Your task to perform on an android device: toggle pop-ups in chrome Image 0: 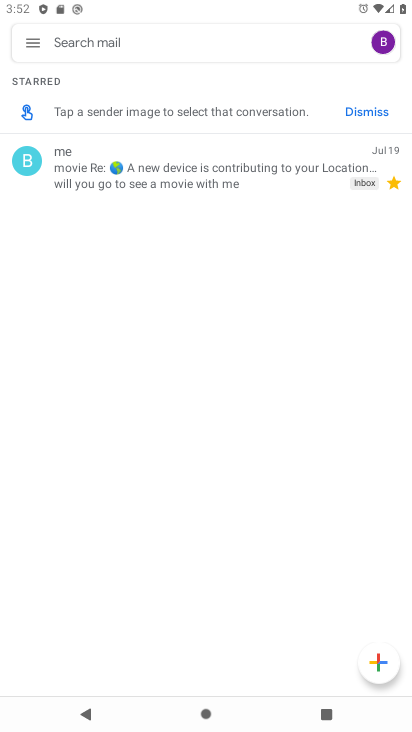
Step 0: press home button
Your task to perform on an android device: toggle pop-ups in chrome Image 1: 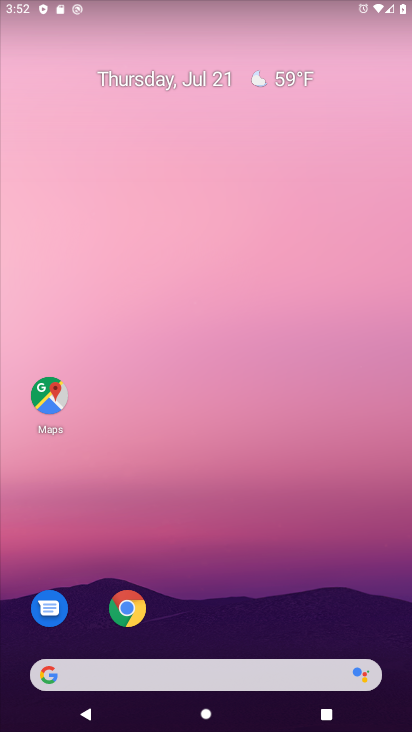
Step 1: drag from (243, 670) to (287, 1)
Your task to perform on an android device: toggle pop-ups in chrome Image 2: 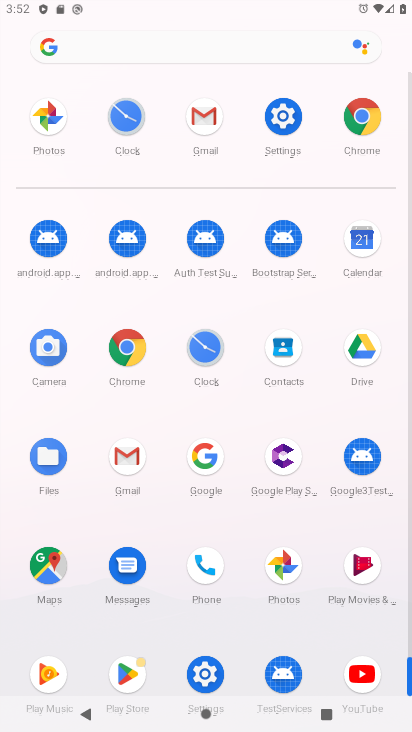
Step 2: click (128, 348)
Your task to perform on an android device: toggle pop-ups in chrome Image 3: 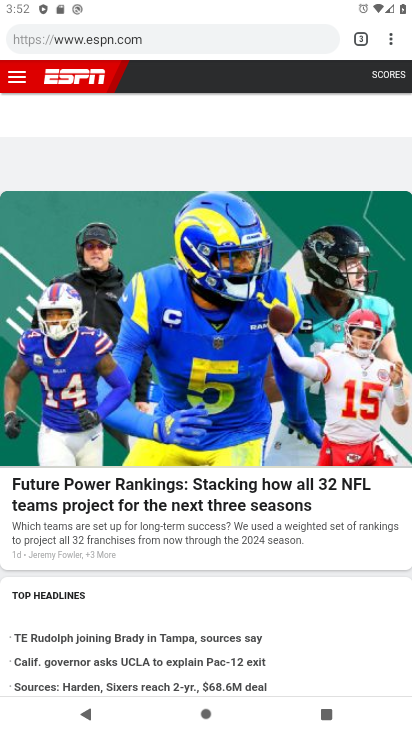
Step 3: drag from (395, 40) to (257, 471)
Your task to perform on an android device: toggle pop-ups in chrome Image 4: 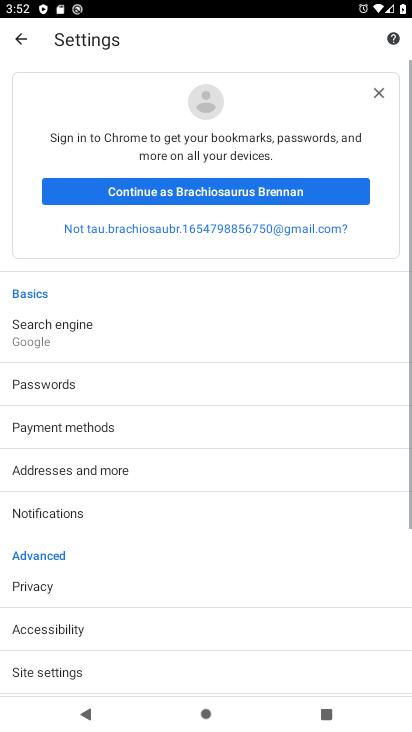
Step 4: drag from (151, 602) to (164, 237)
Your task to perform on an android device: toggle pop-ups in chrome Image 5: 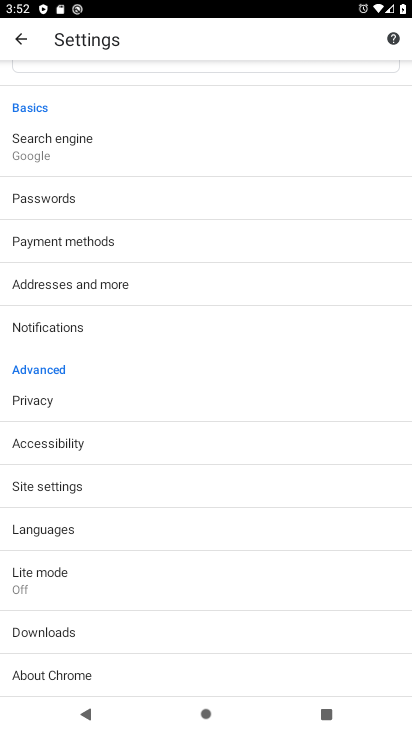
Step 5: click (71, 495)
Your task to perform on an android device: toggle pop-ups in chrome Image 6: 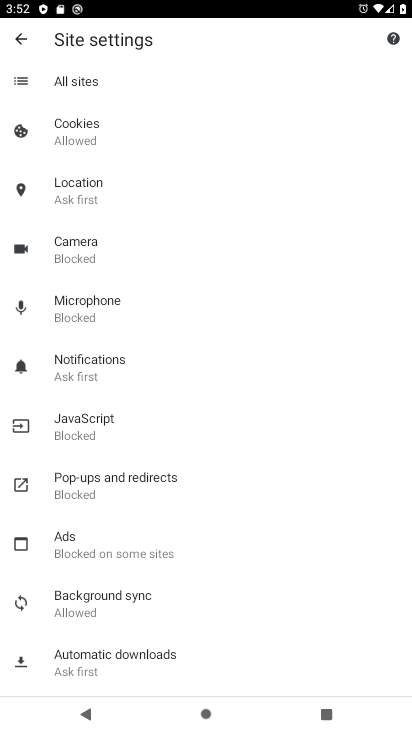
Step 6: click (122, 494)
Your task to perform on an android device: toggle pop-ups in chrome Image 7: 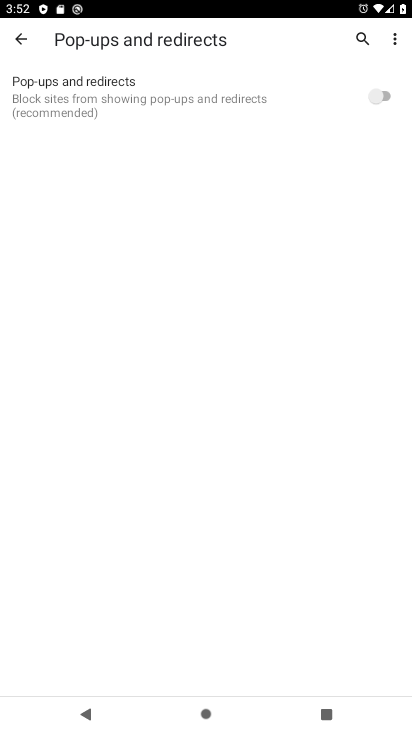
Step 7: click (390, 97)
Your task to perform on an android device: toggle pop-ups in chrome Image 8: 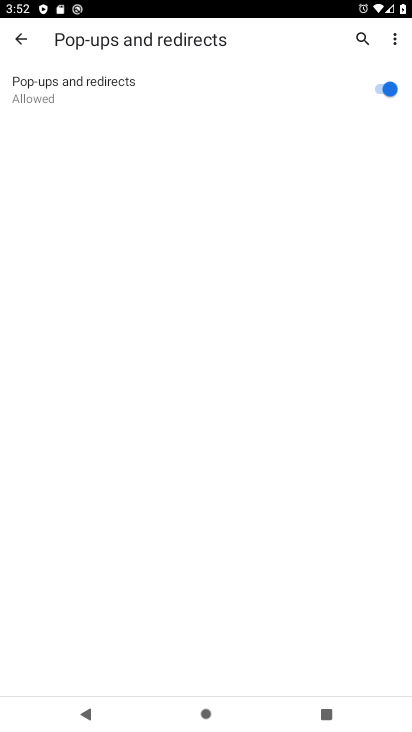
Step 8: task complete